Your task to perform on an android device: turn off smart reply in the gmail app Image 0: 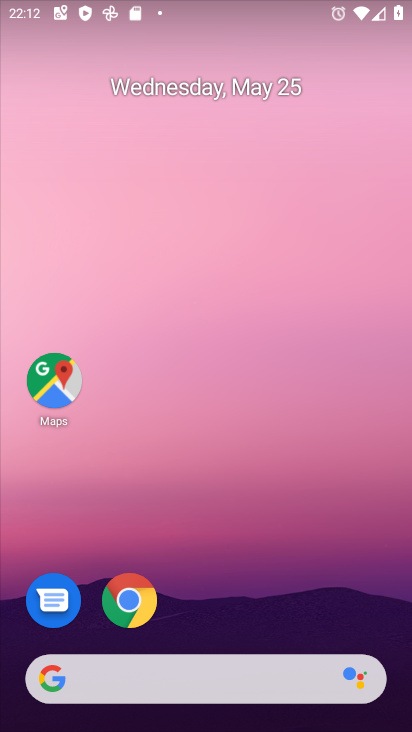
Step 0: drag from (313, 561) to (367, 129)
Your task to perform on an android device: turn off smart reply in the gmail app Image 1: 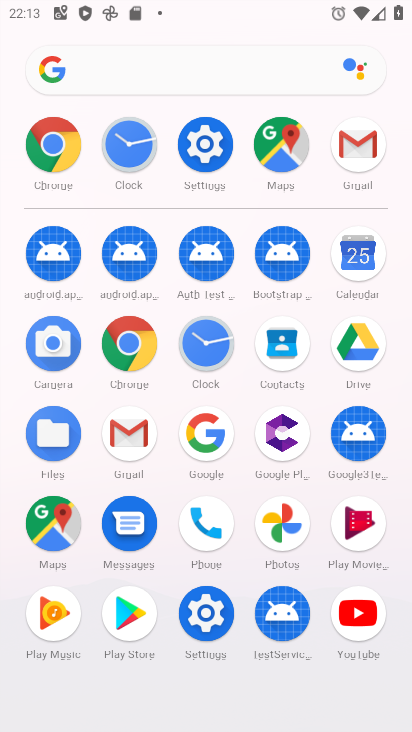
Step 1: click (137, 444)
Your task to perform on an android device: turn off smart reply in the gmail app Image 2: 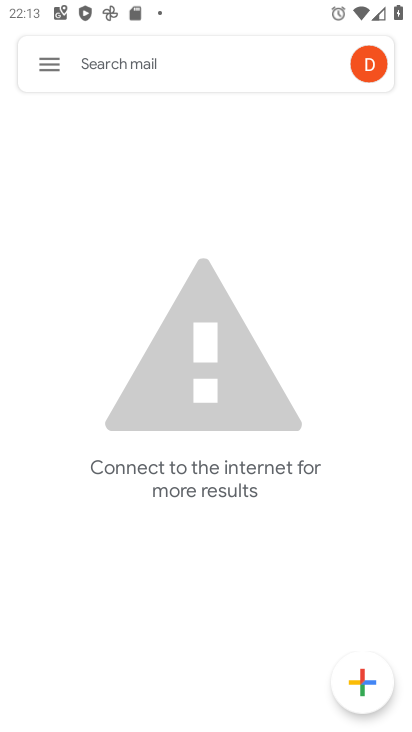
Step 2: click (44, 61)
Your task to perform on an android device: turn off smart reply in the gmail app Image 3: 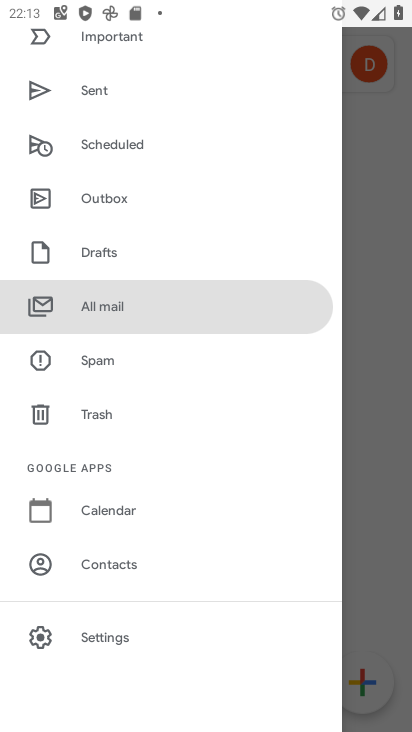
Step 3: click (122, 627)
Your task to perform on an android device: turn off smart reply in the gmail app Image 4: 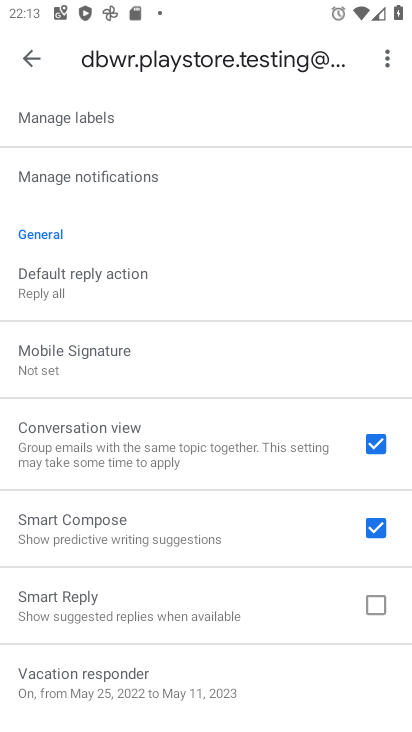
Step 4: task complete